Your task to perform on an android device: Go to network settings Image 0: 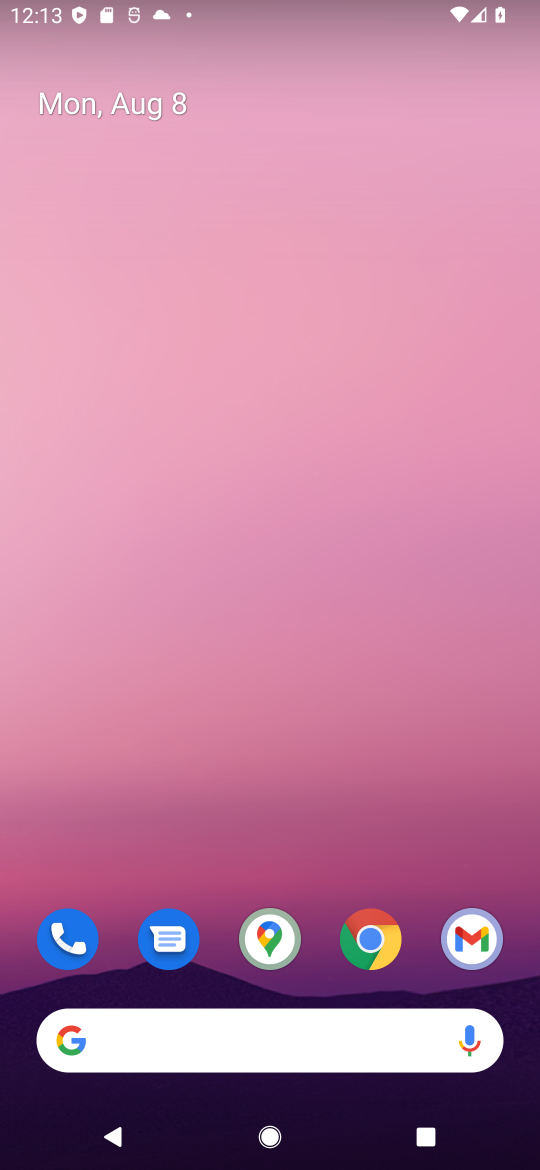
Step 0: drag from (210, 1045) to (261, 178)
Your task to perform on an android device: Go to network settings Image 1: 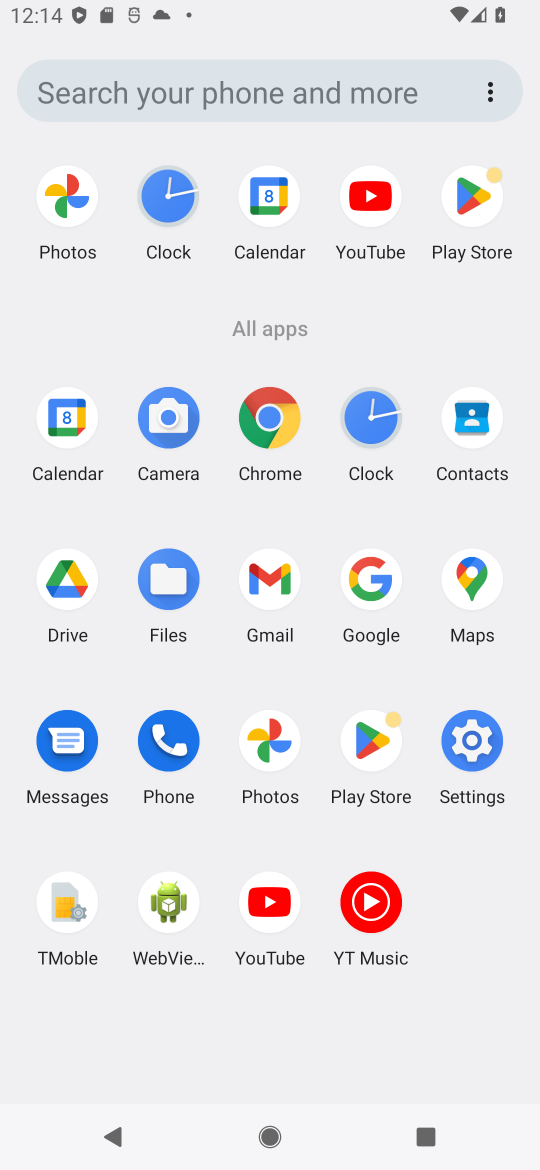
Step 1: click (472, 740)
Your task to perform on an android device: Go to network settings Image 2: 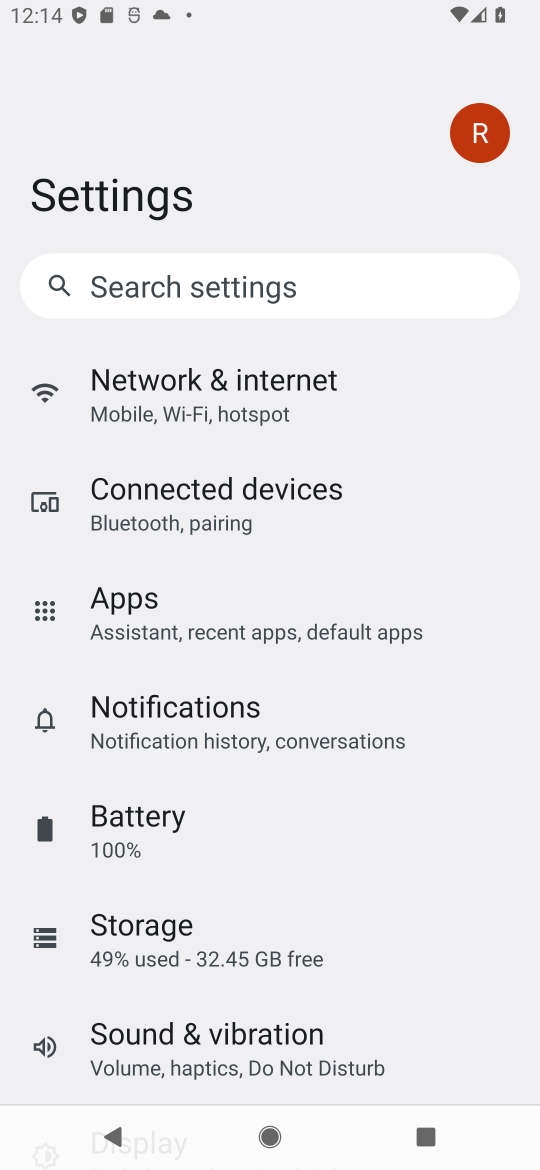
Step 2: click (212, 410)
Your task to perform on an android device: Go to network settings Image 3: 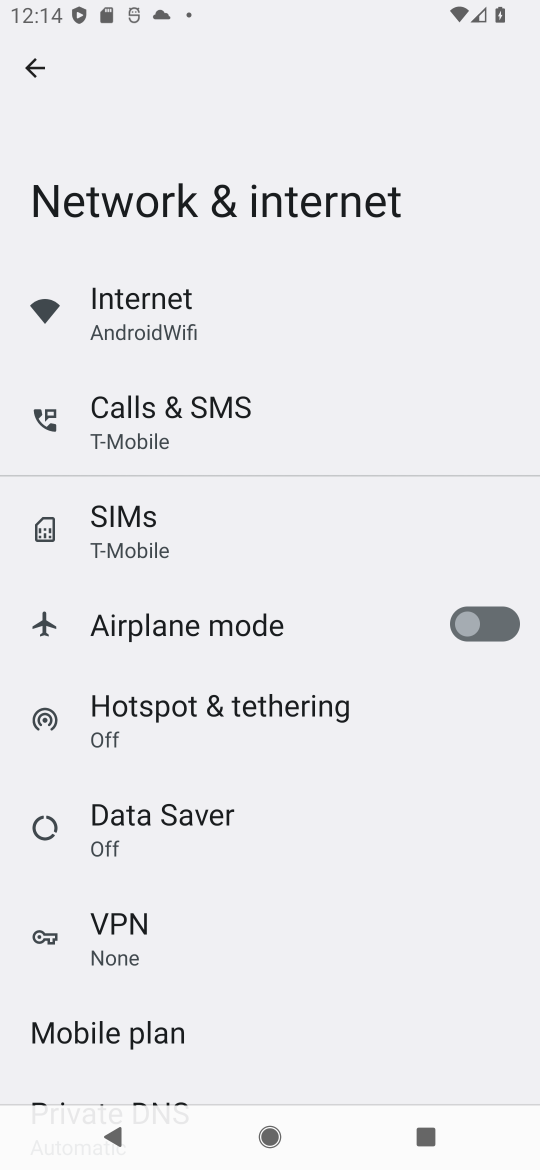
Step 3: click (148, 326)
Your task to perform on an android device: Go to network settings Image 4: 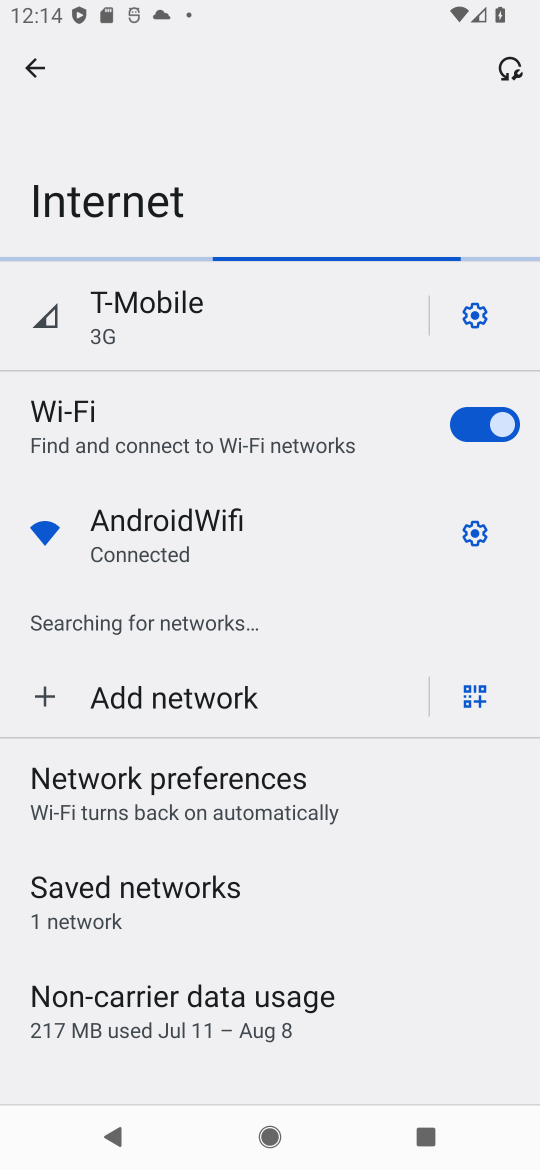
Step 4: task complete